Your task to perform on an android device: Open calendar and show me the third week of next month Image 0: 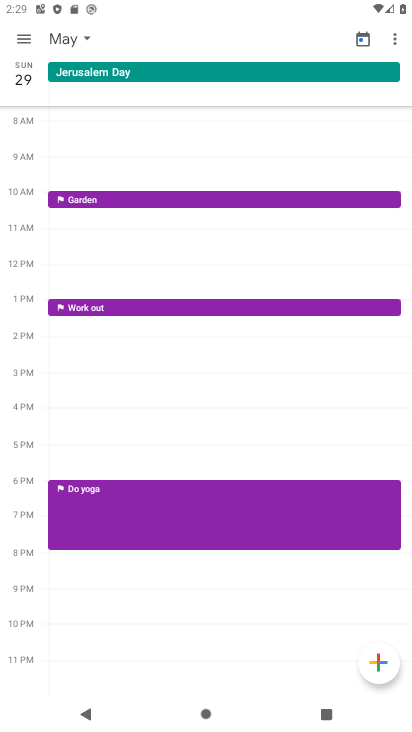
Step 0: press home button
Your task to perform on an android device: Open calendar and show me the third week of next month Image 1: 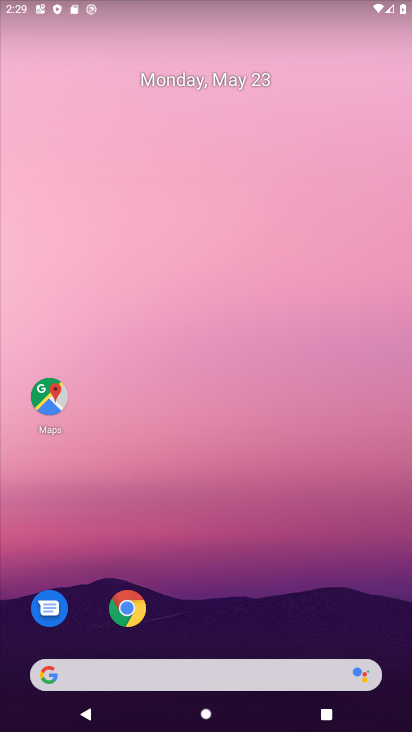
Step 1: drag from (211, 638) to (120, 8)
Your task to perform on an android device: Open calendar and show me the third week of next month Image 2: 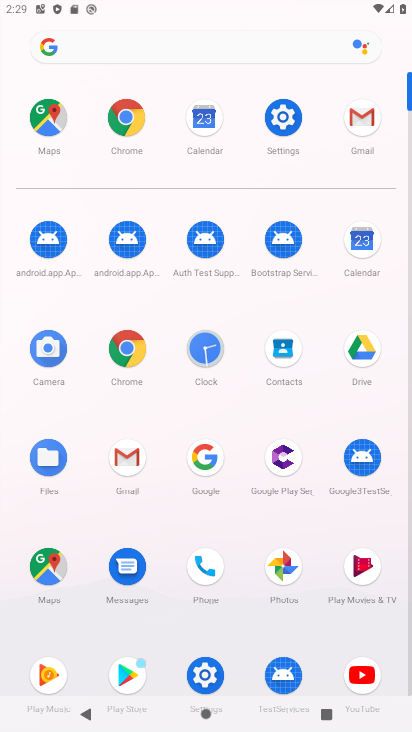
Step 2: click (364, 256)
Your task to perform on an android device: Open calendar and show me the third week of next month Image 3: 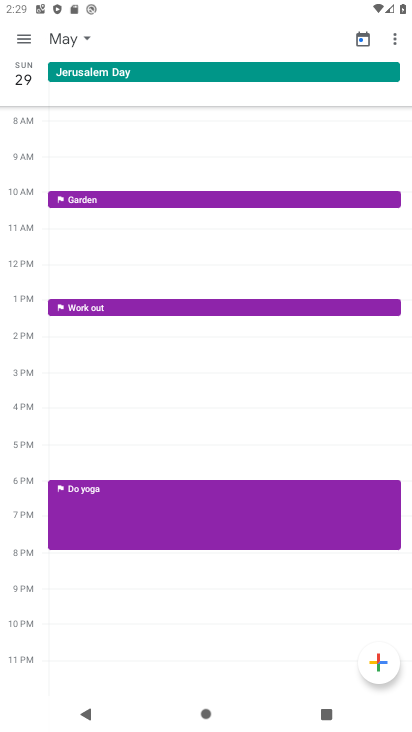
Step 3: click (27, 46)
Your task to perform on an android device: Open calendar and show me the third week of next month Image 4: 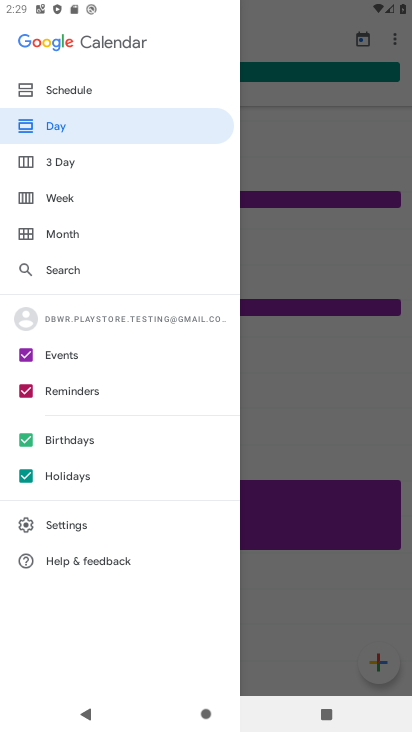
Step 4: click (50, 194)
Your task to perform on an android device: Open calendar and show me the third week of next month Image 5: 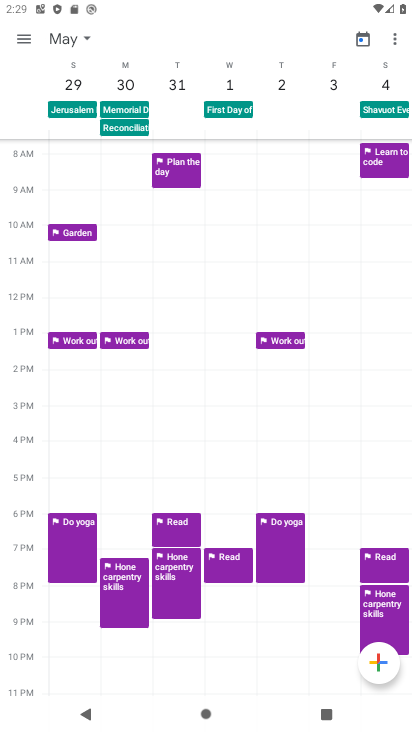
Step 5: task complete